Your task to perform on an android device: toggle show notifications on the lock screen Image 0: 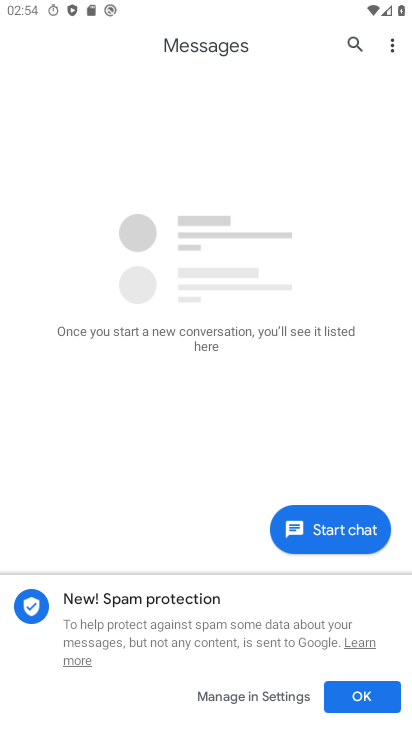
Step 0: press home button
Your task to perform on an android device: toggle show notifications on the lock screen Image 1: 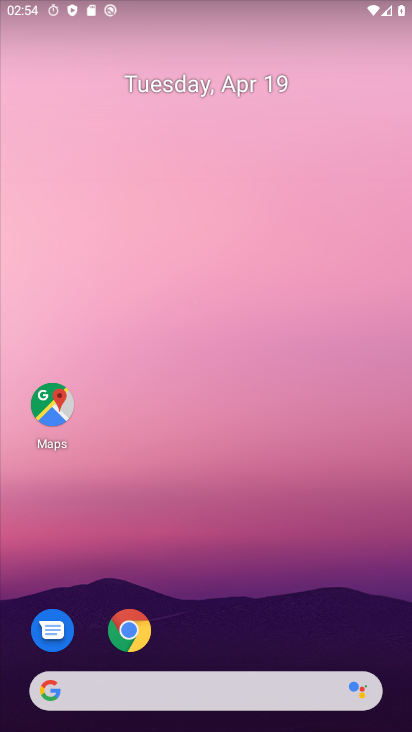
Step 1: drag from (269, 640) to (264, 99)
Your task to perform on an android device: toggle show notifications on the lock screen Image 2: 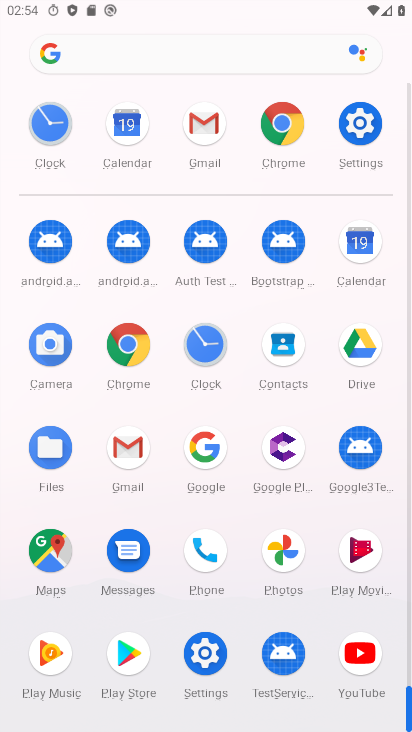
Step 2: click (355, 131)
Your task to perform on an android device: toggle show notifications on the lock screen Image 3: 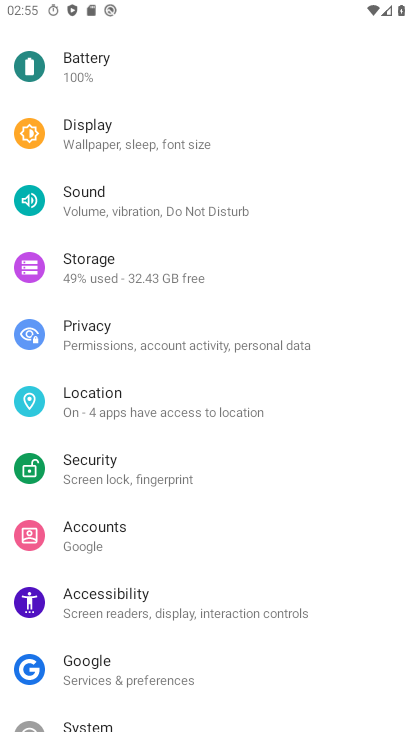
Step 3: drag from (283, 189) to (271, 565)
Your task to perform on an android device: toggle show notifications on the lock screen Image 4: 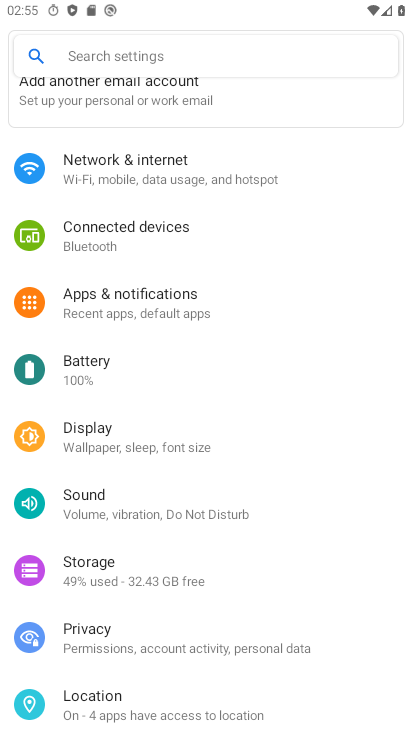
Step 4: click (146, 295)
Your task to perform on an android device: toggle show notifications on the lock screen Image 5: 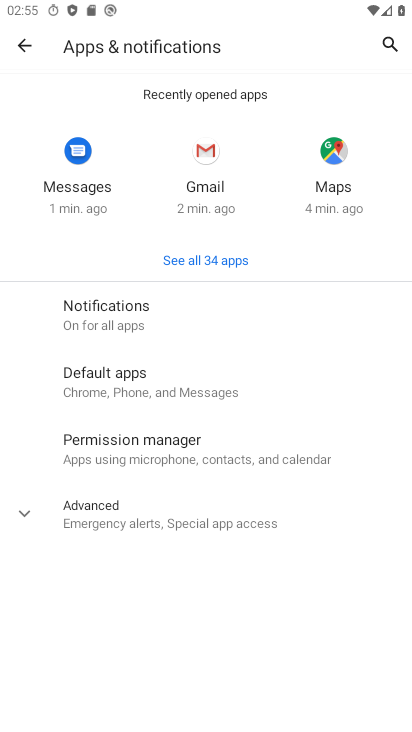
Step 5: click (155, 299)
Your task to perform on an android device: toggle show notifications on the lock screen Image 6: 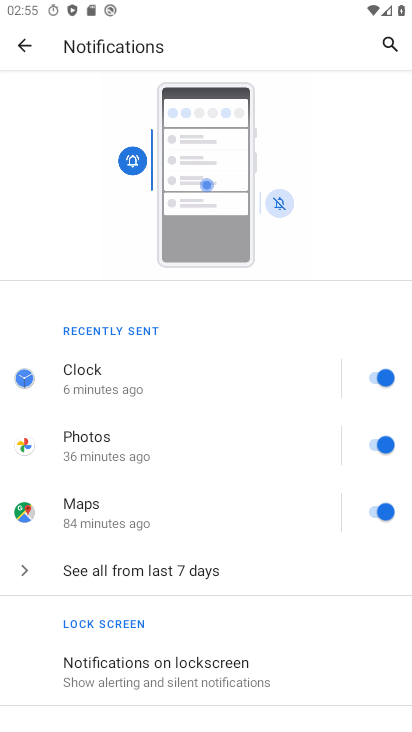
Step 6: drag from (281, 658) to (281, 345)
Your task to perform on an android device: toggle show notifications on the lock screen Image 7: 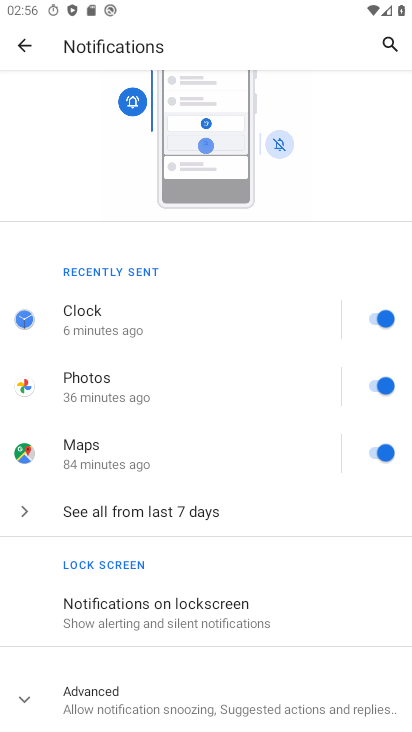
Step 7: click (227, 603)
Your task to perform on an android device: toggle show notifications on the lock screen Image 8: 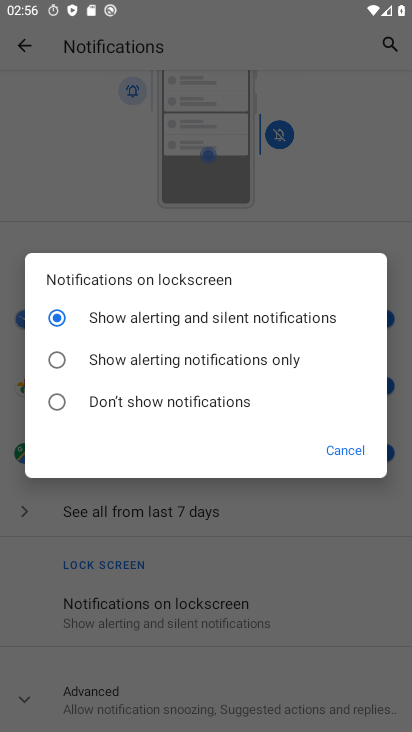
Step 8: click (53, 362)
Your task to perform on an android device: toggle show notifications on the lock screen Image 9: 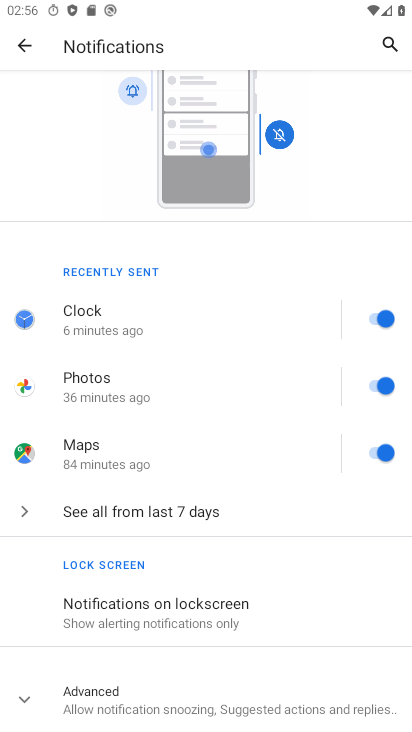
Step 9: task complete